Your task to perform on an android device: Go to Reddit.com Image 0: 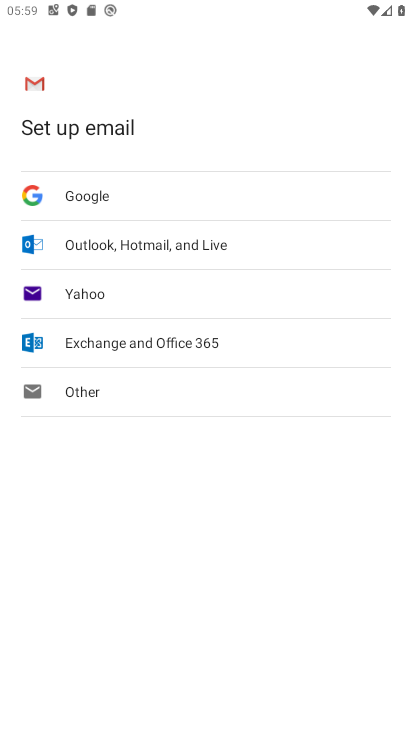
Step 0: press home button
Your task to perform on an android device: Go to Reddit.com Image 1: 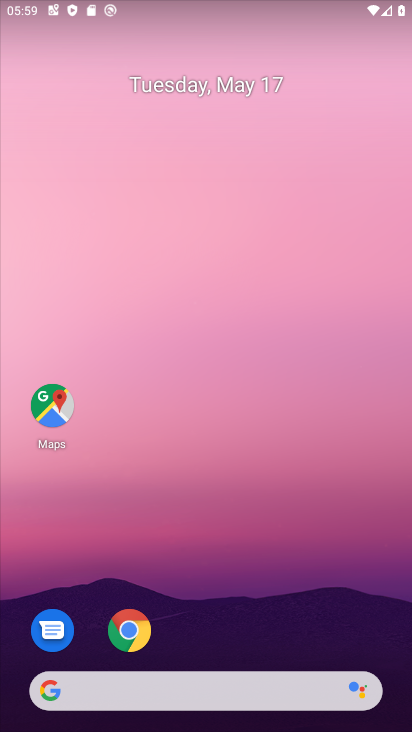
Step 1: click (122, 639)
Your task to perform on an android device: Go to Reddit.com Image 2: 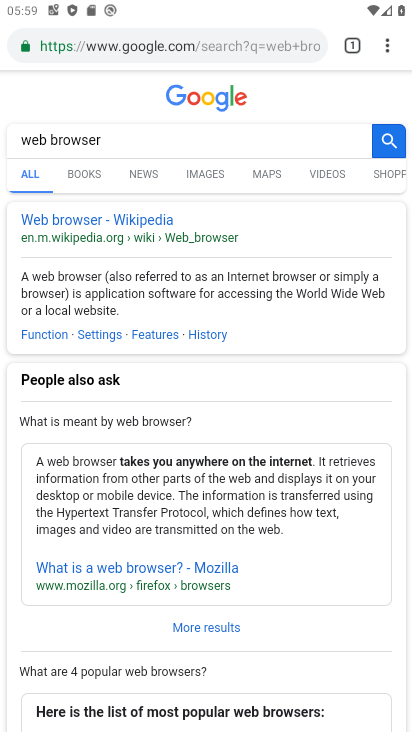
Step 2: click (105, 44)
Your task to perform on an android device: Go to Reddit.com Image 3: 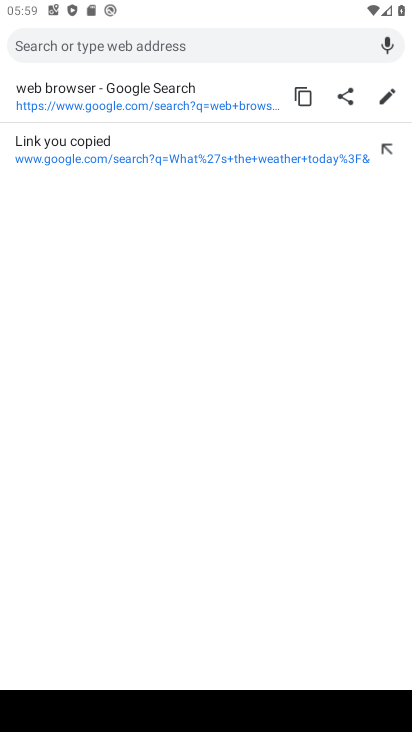
Step 3: type " Reddit.com"
Your task to perform on an android device: Go to Reddit.com Image 4: 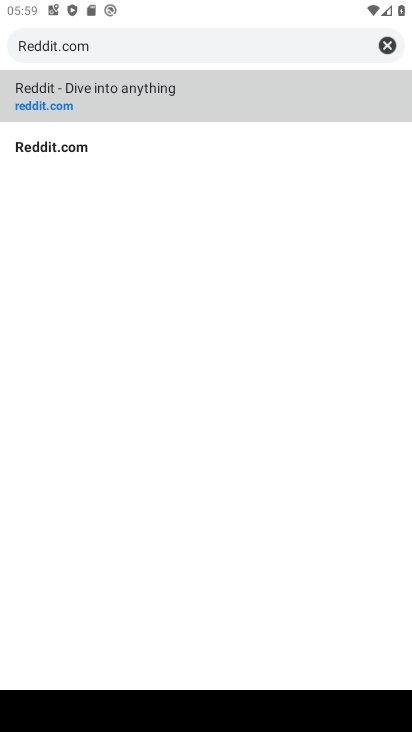
Step 4: click (36, 102)
Your task to perform on an android device: Go to Reddit.com Image 5: 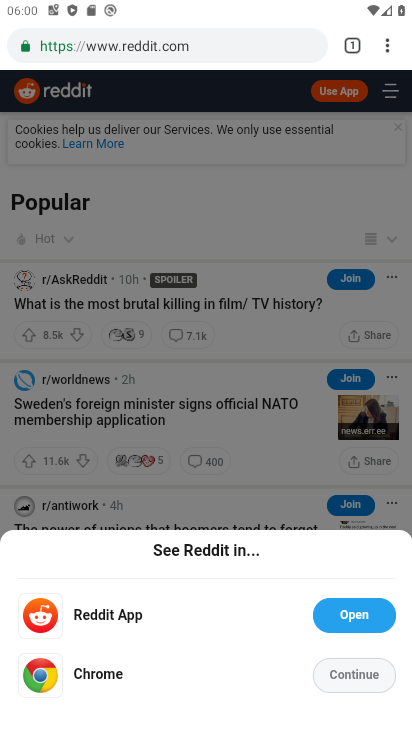
Step 5: task complete